Your task to perform on an android device: Show me the alarms in the clock app Image 0: 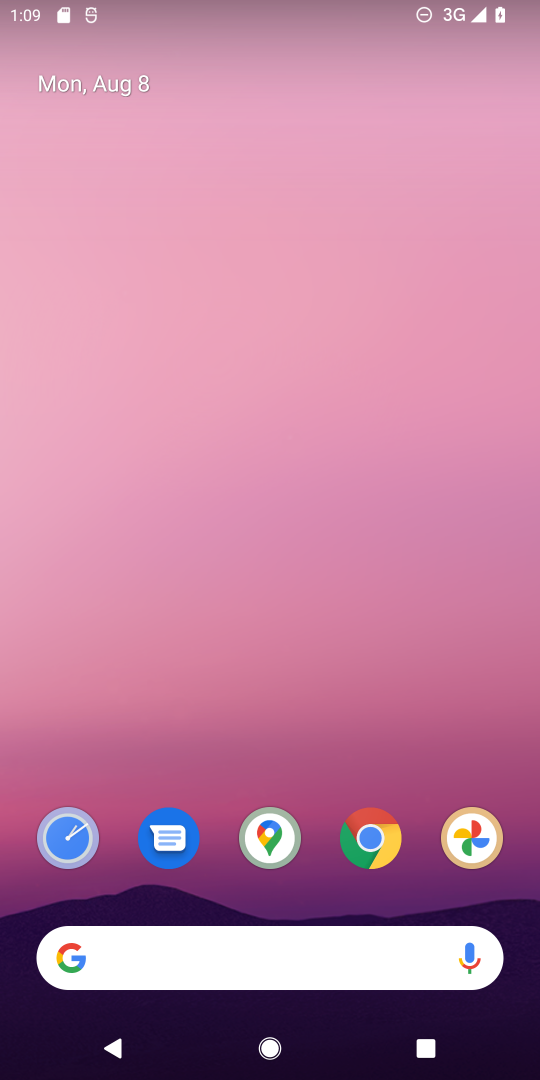
Step 0: press home button
Your task to perform on an android device: Show me the alarms in the clock app Image 1: 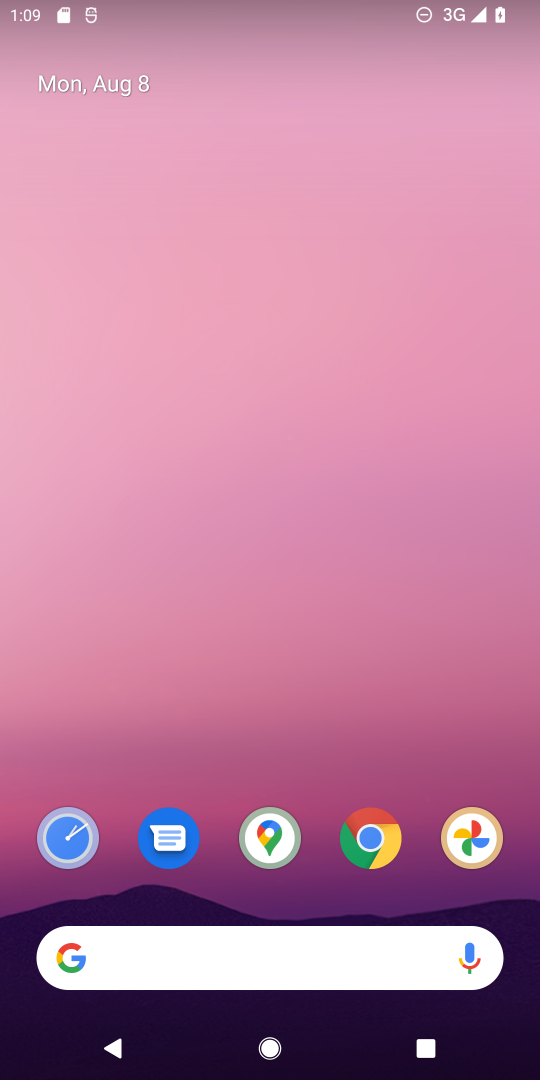
Step 1: click (64, 848)
Your task to perform on an android device: Show me the alarms in the clock app Image 2: 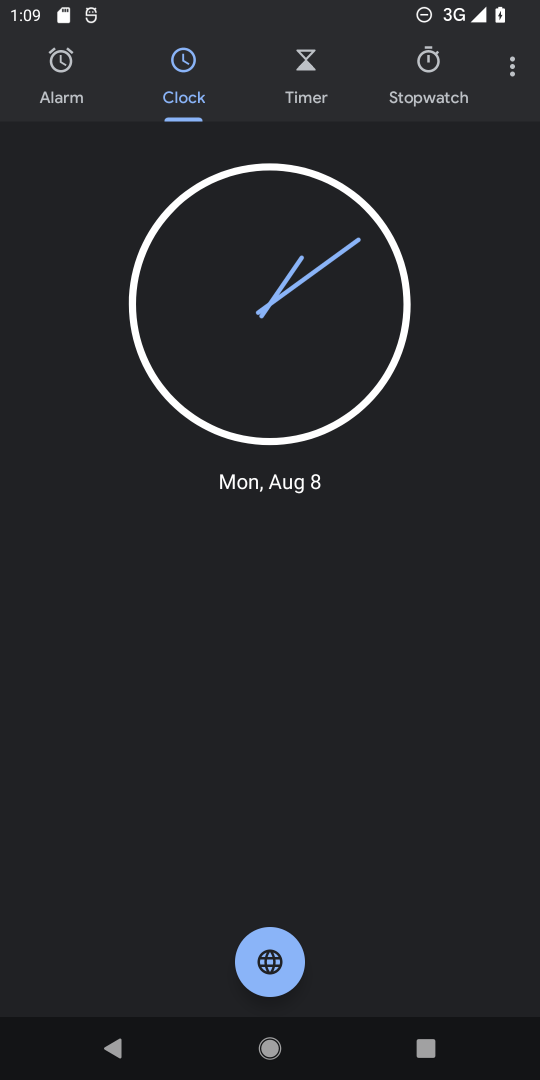
Step 2: click (56, 71)
Your task to perform on an android device: Show me the alarms in the clock app Image 3: 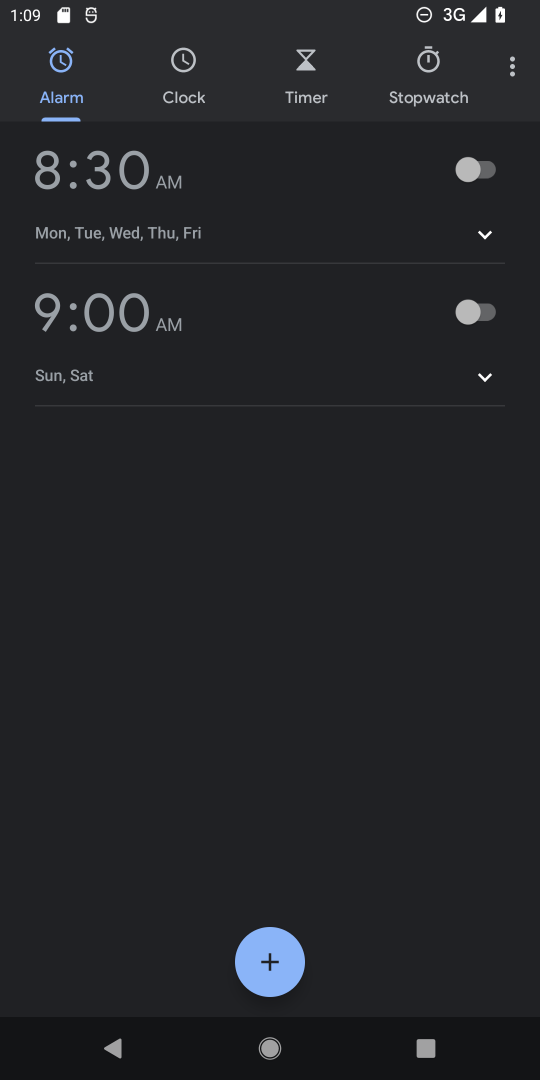
Step 3: task complete